Your task to perform on an android device: Show the shopping cart on ebay.com. Add "usb-b" to the cart on ebay.com Image 0: 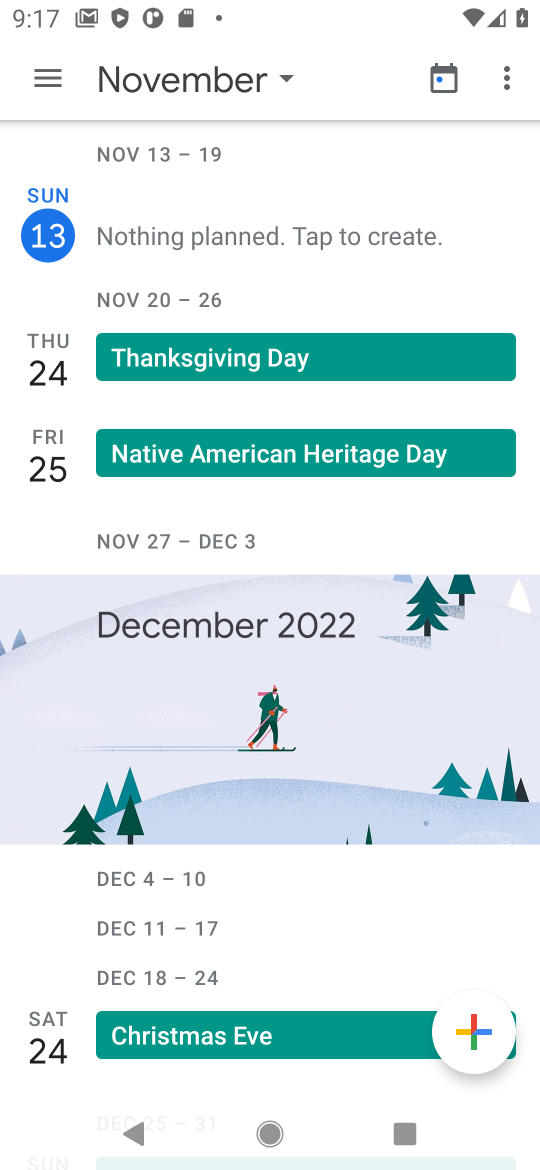
Step 0: press home button
Your task to perform on an android device: Show the shopping cart on ebay.com. Add "usb-b" to the cart on ebay.com Image 1: 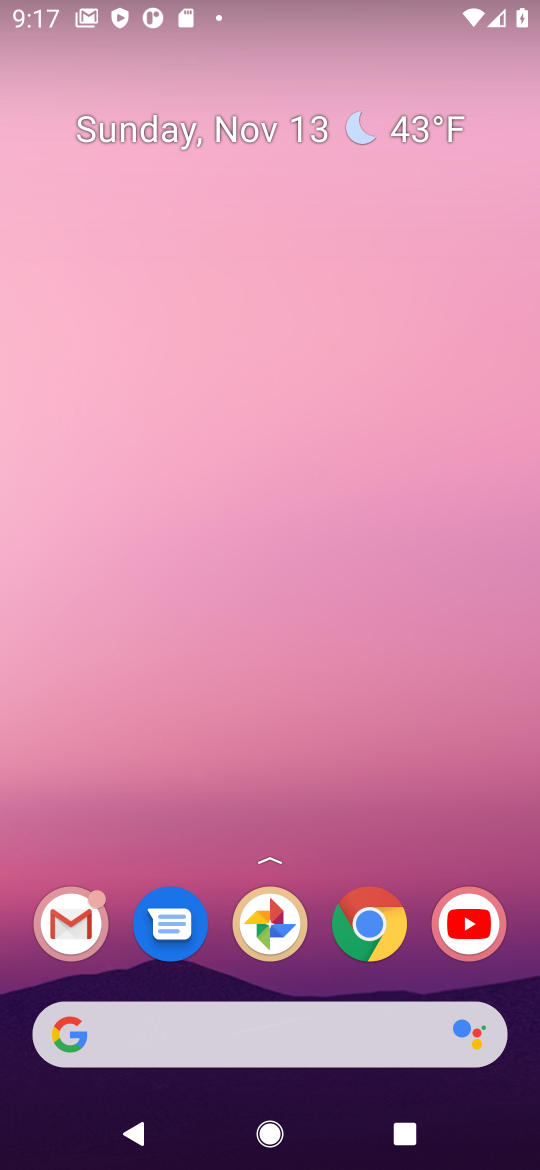
Step 1: click (371, 936)
Your task to perform on an android device: Show the shopping cart on ebay.com. Add "usb-b" to the cart on ebay.com Image 2: 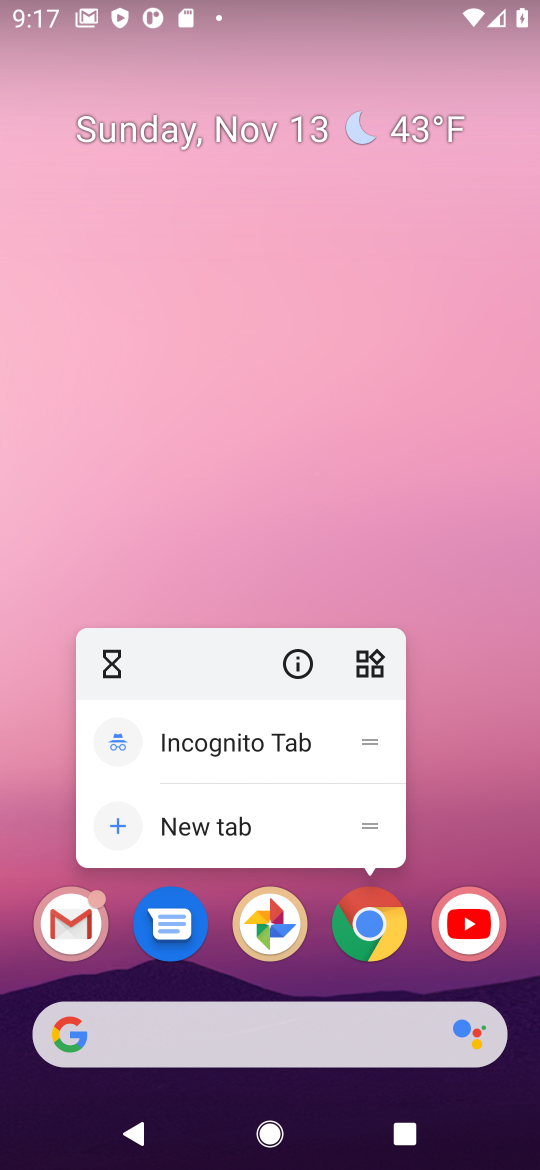
Step 2: click (371, 936)
Your task to perform on an android device: Show the shopping cart on ebay.com. Add "usb-b" to the cart on ebay.com Image 3: 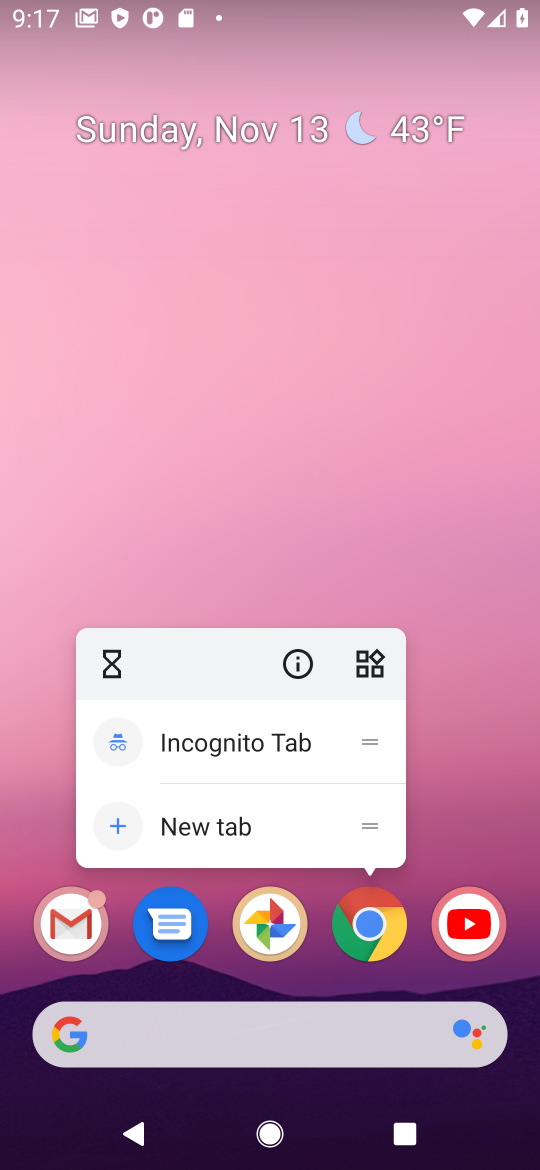
Step 3: click (376, 930)
Your task to perform on an android device: Show the shopping cart on ebay.com. Add "usb-b" to the cart on ebay.com Image 4: 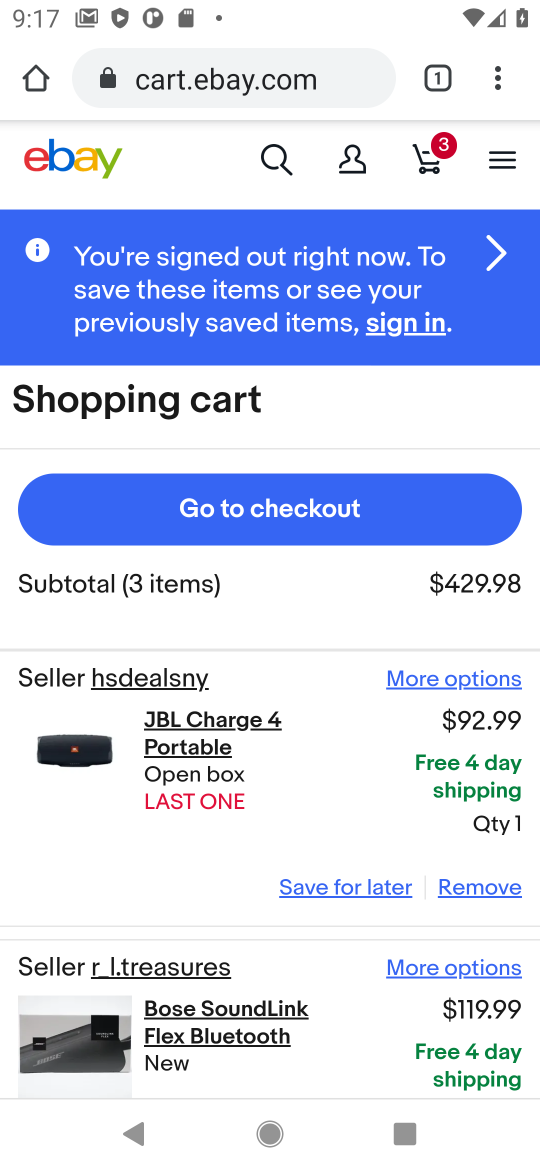
Step 4: click (269, 151)
Your task to perform on an android device: Show the shopping cart on ebay.com. Add "usb-b" to the cart on ebay.com Image 5: 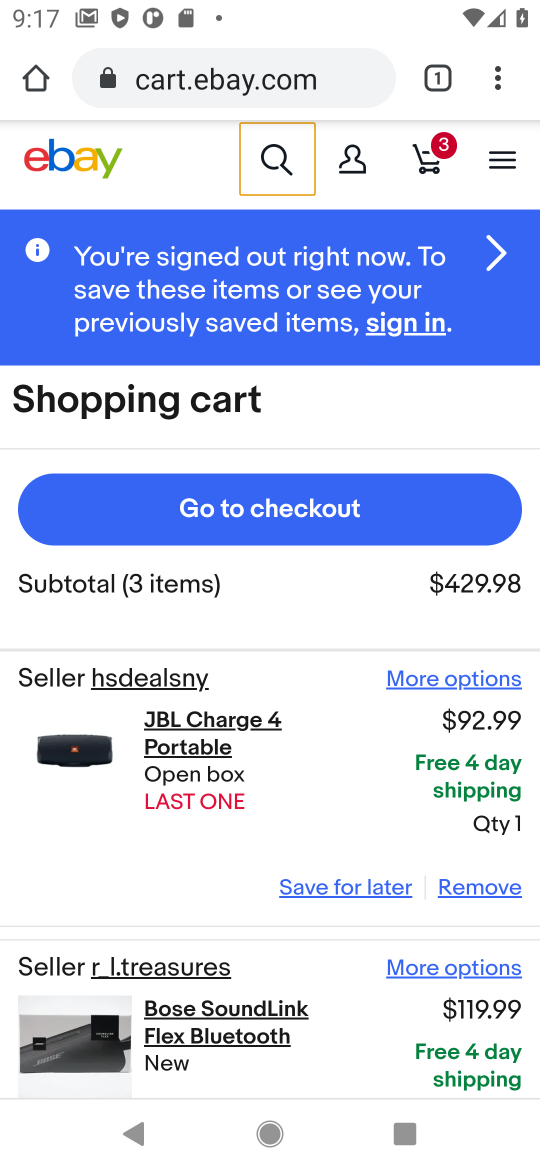
Step 5: click (282, 166)
Your task to perform on an android device: Show the shopping cart on ebay.com. Add "usb-b" to the cart on ebay.com Image 6: 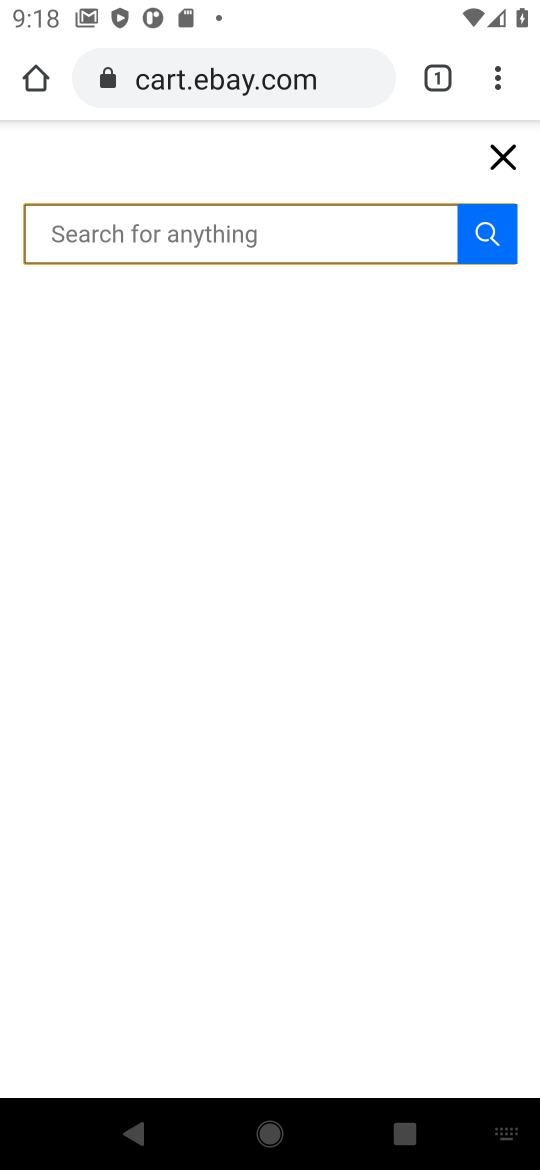
Step 6: type "usb-b"
Your task to perform on an android device: Show the shopping cart on ebay.com. Add "usb-b" to the cart on ebay.com Image 7: 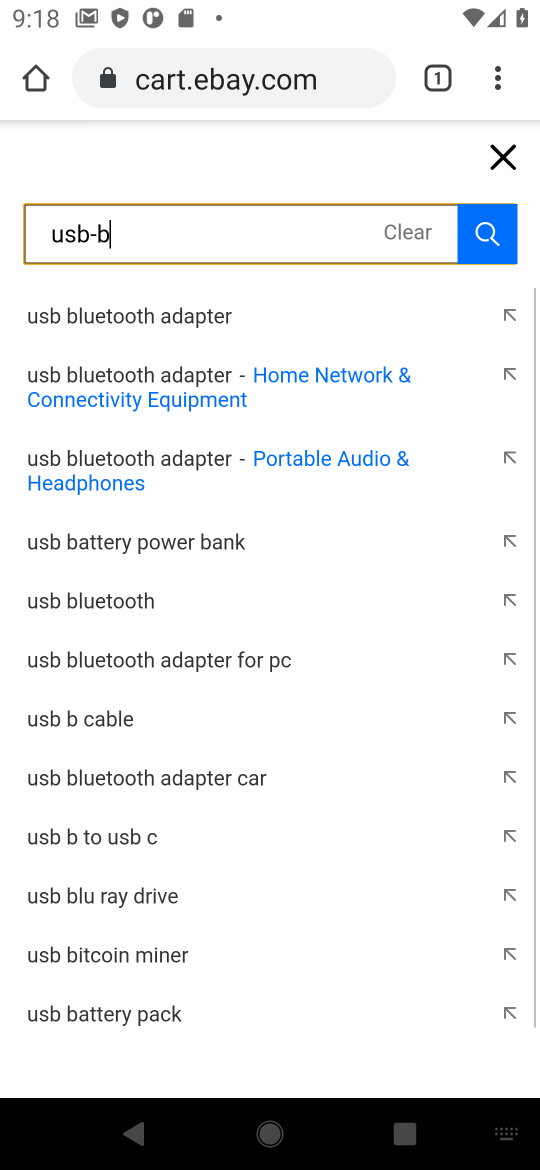
Step 7: press enter
Your task to perform on an android device: Show the shopping cart on ebay.com. Add "usb-b" to the cart on ebay.com Image 8: 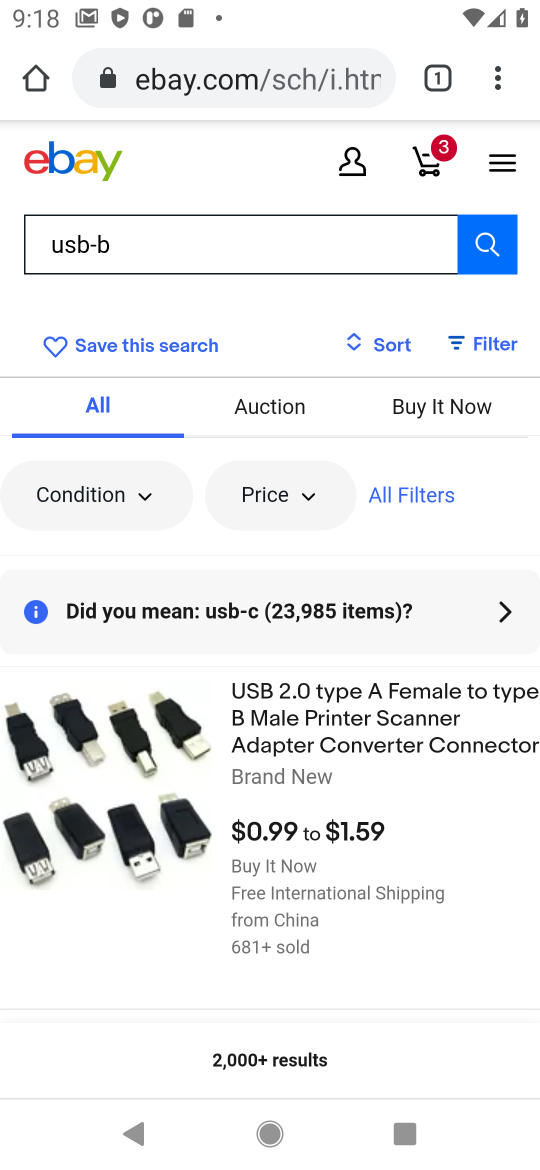
Step 8: drag from (354, 897) to (413, 511)
Your task to perform on an android device: Show the shopping cart on ebay.com. Add "usb-b" to the cart on ebay.com Image 9: 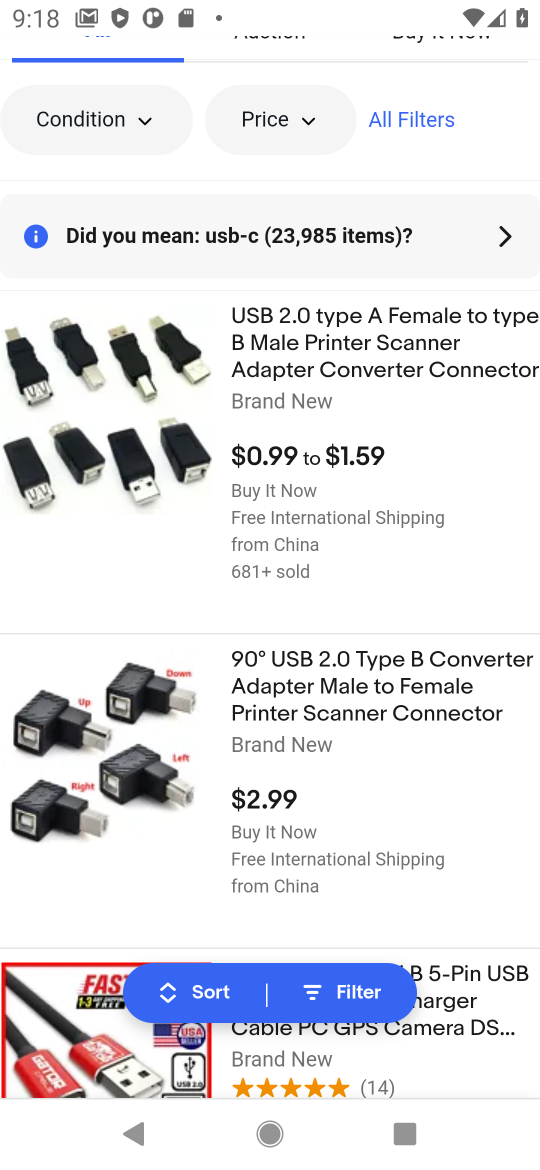
Step 9: drag from (335, 812) to (258, 907)
Your task to perform on an android device: Show the shopping cart on ebay.com. Add "usb-b" to the cart on ebay.com Image 10: 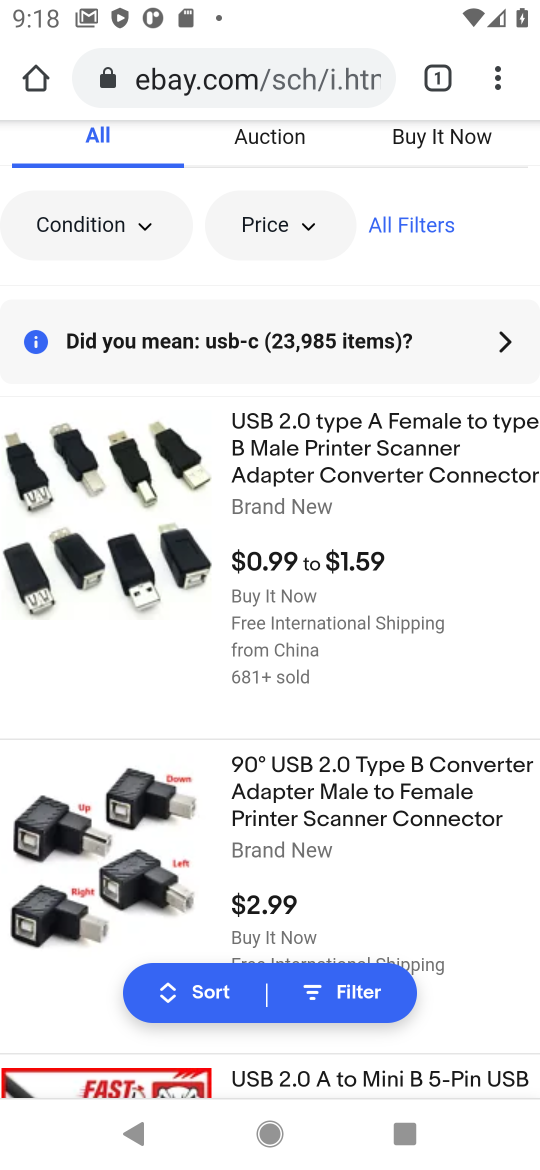
Step 10: click (338, 819)
Your task to perform on an android device: Show the shopping cart on ebay.com. Add "usb-b" to the cart on ebay.com Image 11: 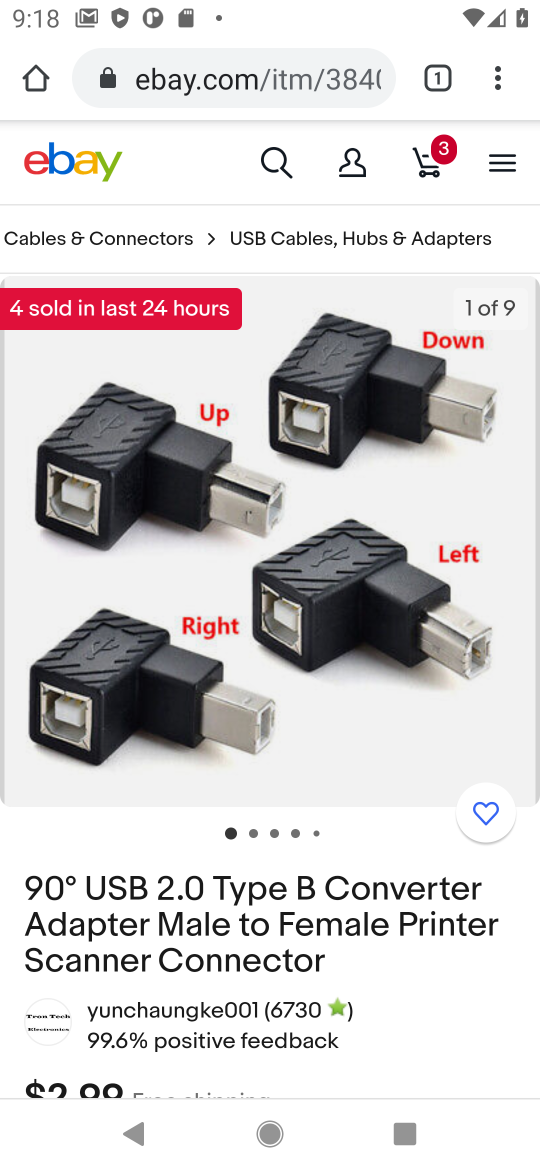
Step 11: drag from (341, 792) to (329, 520)
Your task to perform on an android device: Show the shopping cart on ebay.com. Add "usb-b" to the cart on ebay.com Image 12: 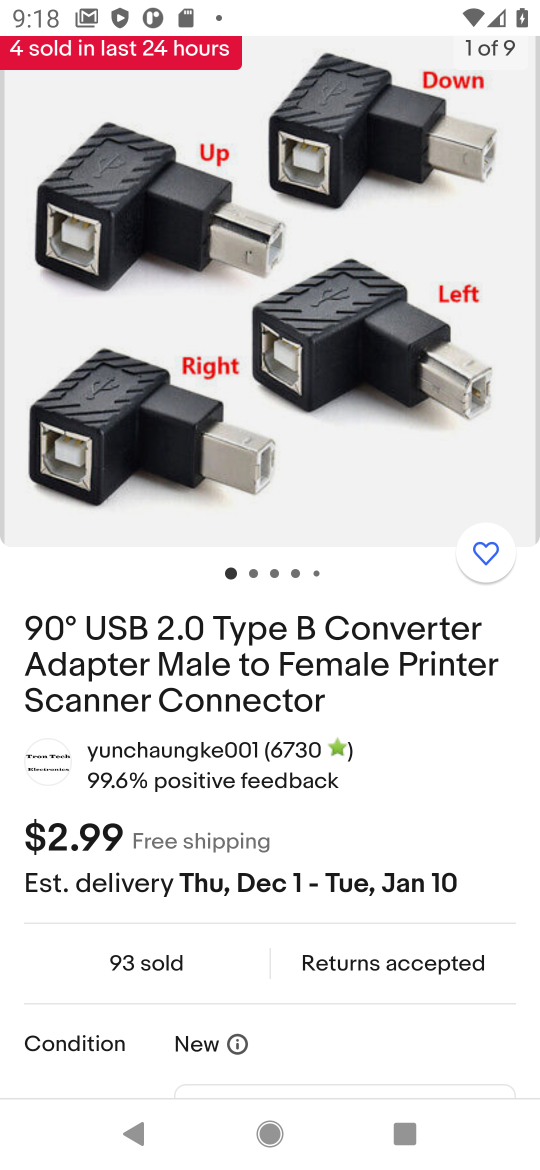
Step 12: drag from (309, 896) to (370, 453)
Your task to perform on an android device: Show the shopping cart on ebay.com. Add "usb-b" to the cart on ebay.com Image 13: 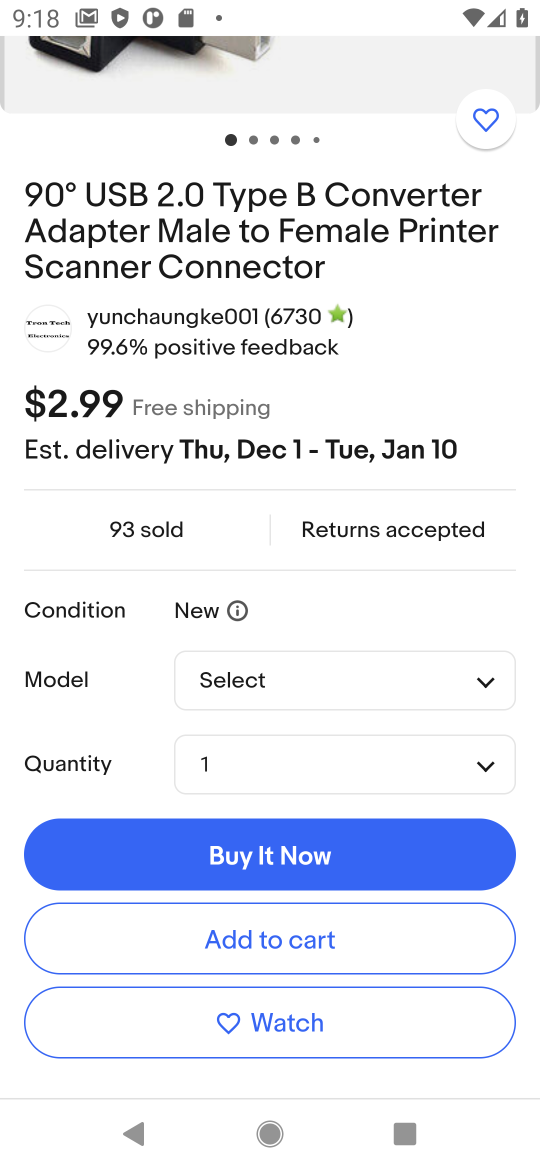
Step 13: click (279, 949)
Your task to perform on an android device: Show the shopping cart on ebay.com. Add "usb-b" to the cart on ebay.com Image 14: 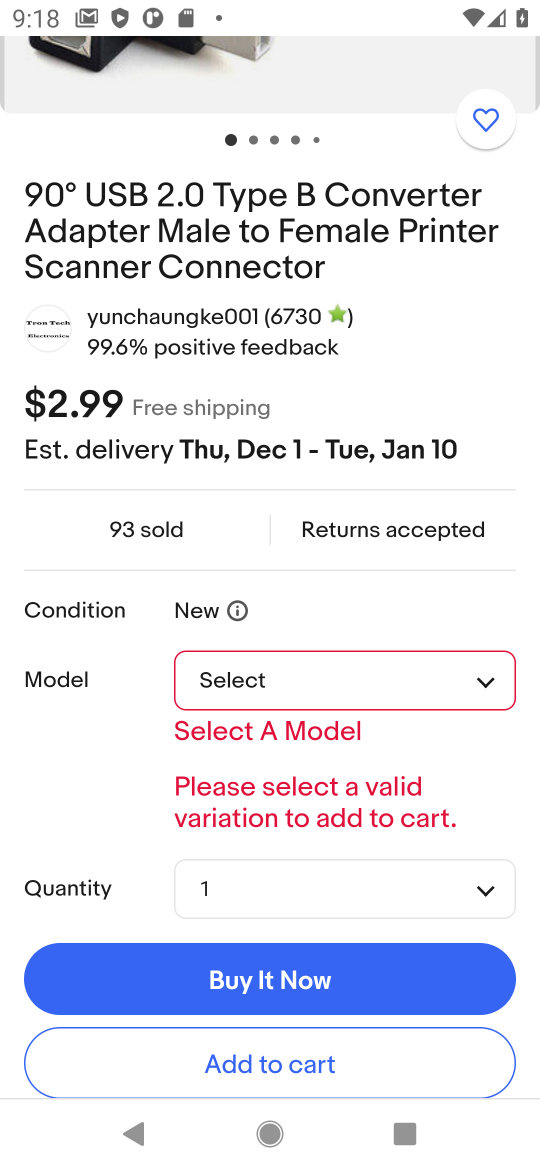
Step 14: click (482, 686)
Your task to perform on an android device: Show the shopping cart on ebay.com. Add "usb-b" to the cart on ebay.com Image 15: 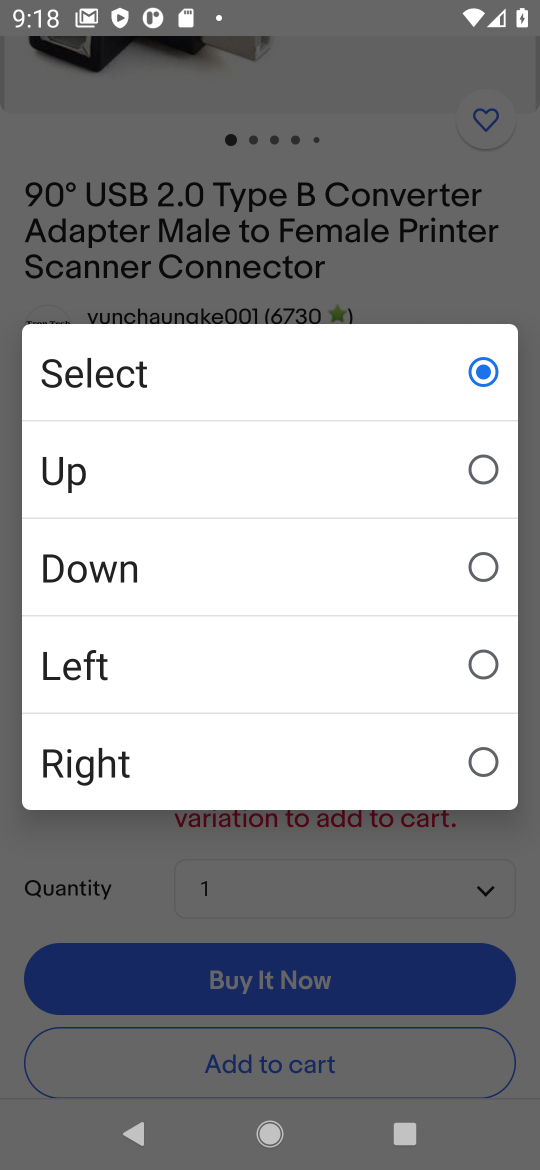
Step 15: click (494, 466)
Your task to perform on an android device: Show the shopping cart on ebay.com. Add "usb-b" to the cart on ebay.com Image 16: 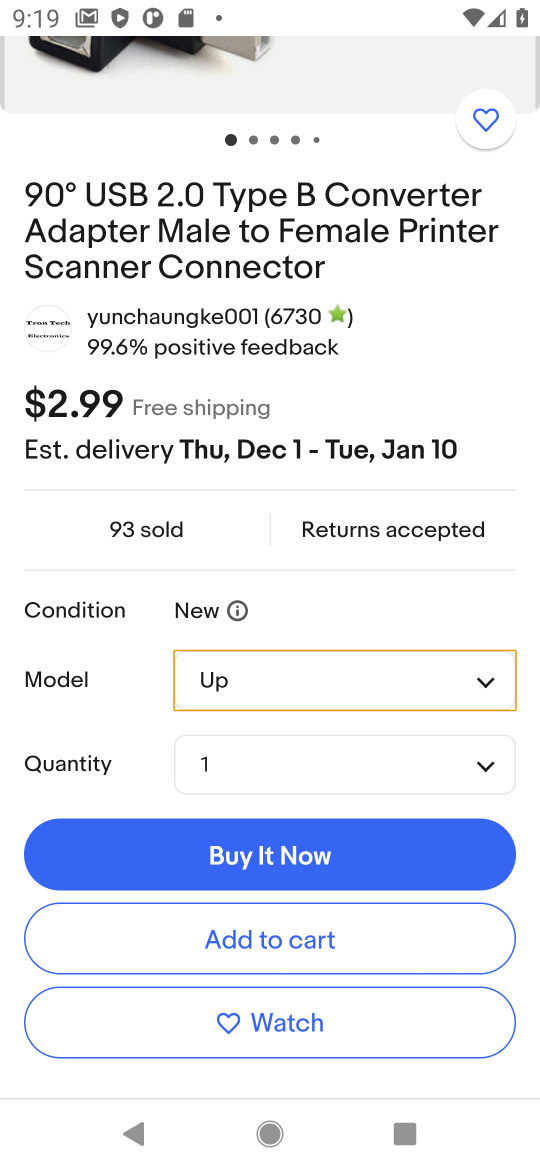
Step 16: click (226, 942)
Your task to perform on an android device: Show the shopping cart on ebay.com. Add "usb-b" to the cart on ebay.com Image 17: 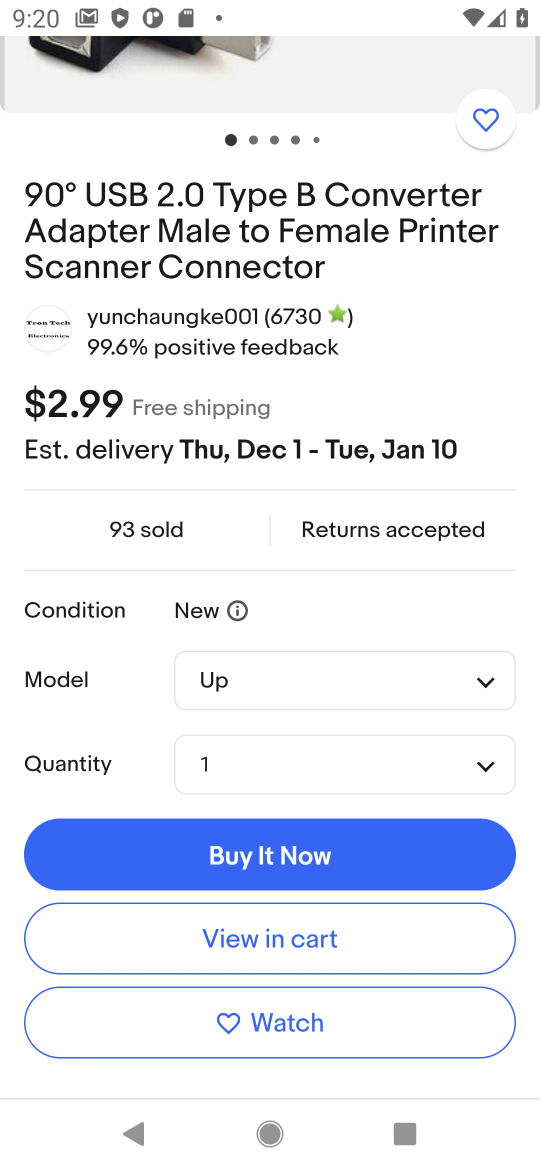
Step 17: task complete